Your task to perform on an android device: open app "Google Sheets" Image 0: 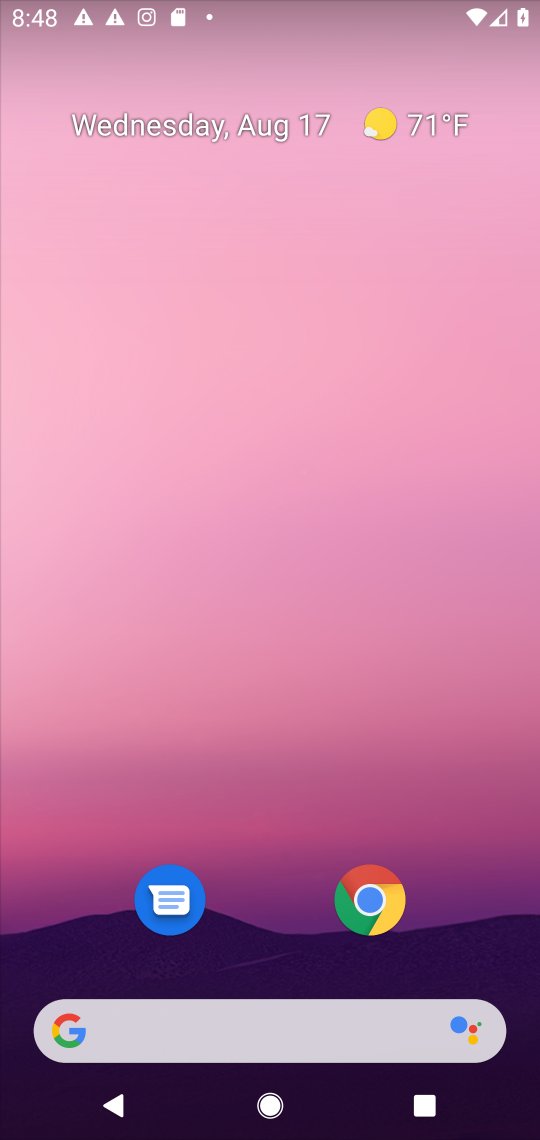
Step 0: drag from (288, 993) to (308, 165)
Your task to perform on an android device: open app "Google Sheets" Image 1: 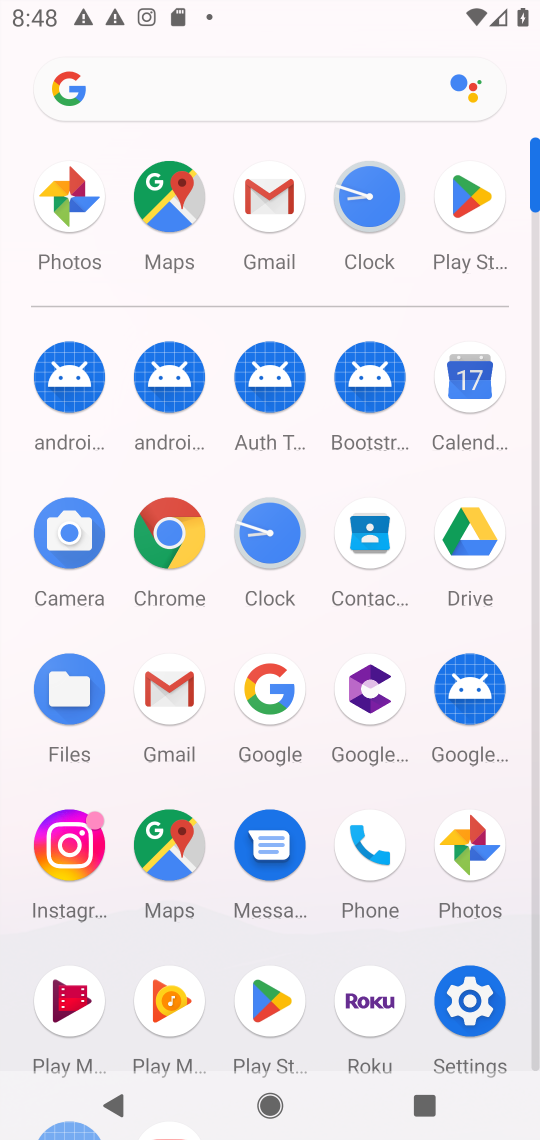
Step 1: click (483, 209)
Your task to perform on an android device: open app "Google Sheets" Image 2: 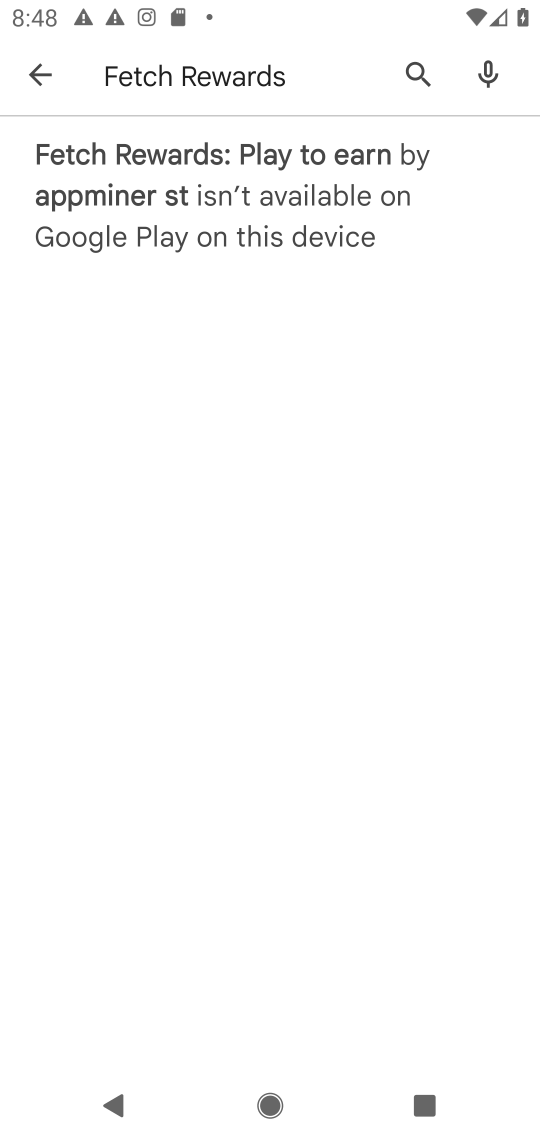
Step 2: click (36, 80)
Your task to perform on an android device: open app "Google Sheets" Image 3: 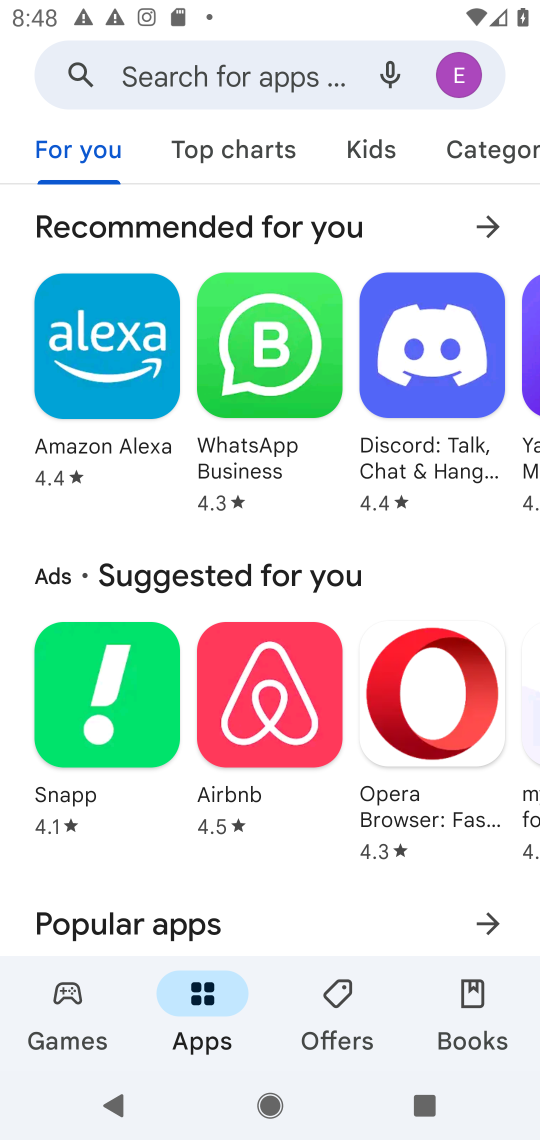
Step 3: click (193, 80)
Your task to perform on an android device: open app "Google Sheets" Image 4: 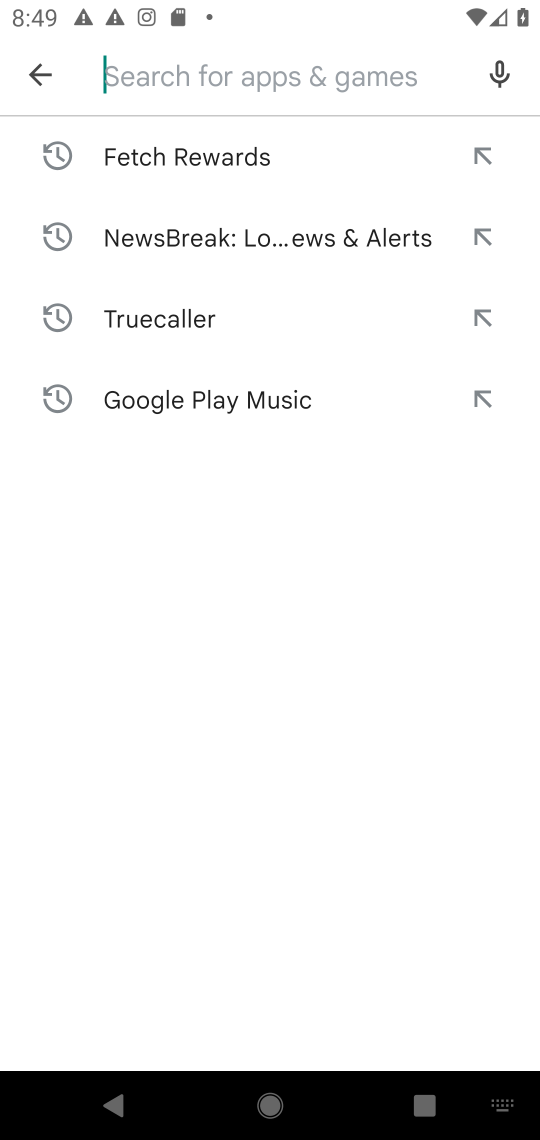
Step 4: type "Google Sheets"
Your task to perform on an android device: open app "Google Sheets" Image 5: 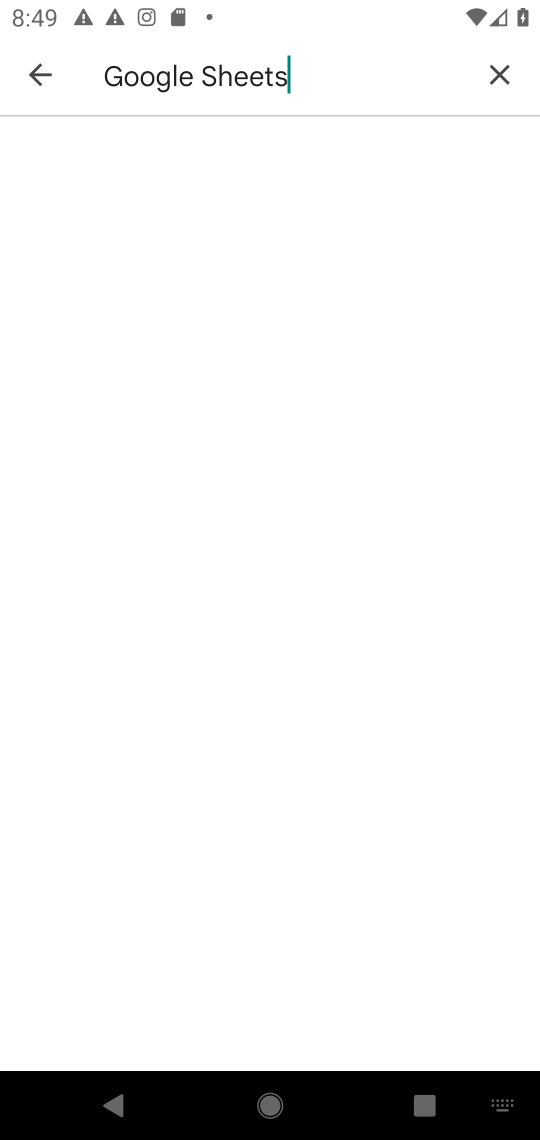
Step 5: press enter
Your task to perform on an android device: open app "Google Sheets" Image 6: 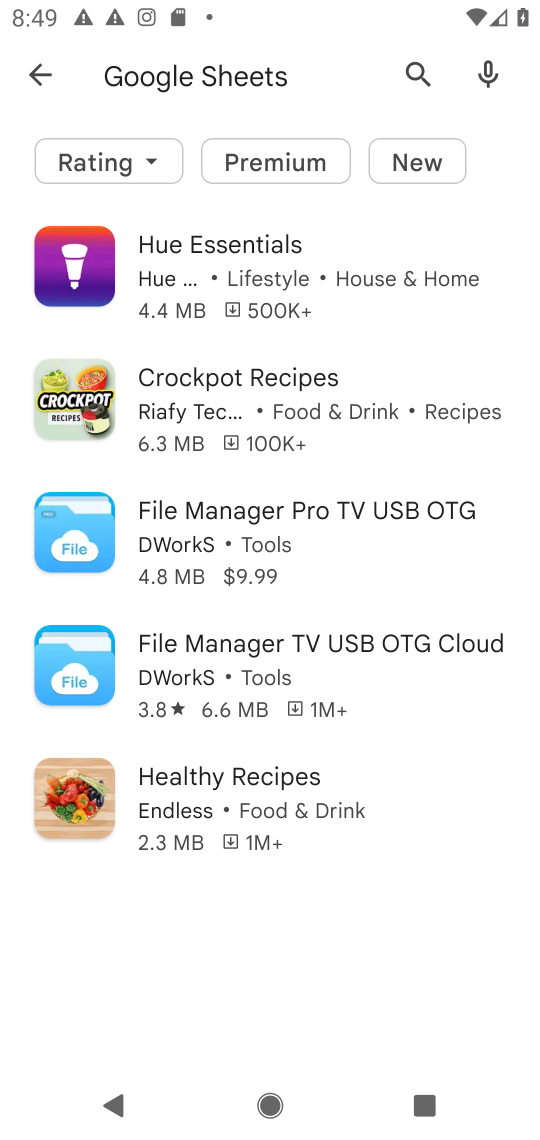
Step 6: task complete